Your task to perform on an android device: toggle show notifications on the lock screen Image 0: 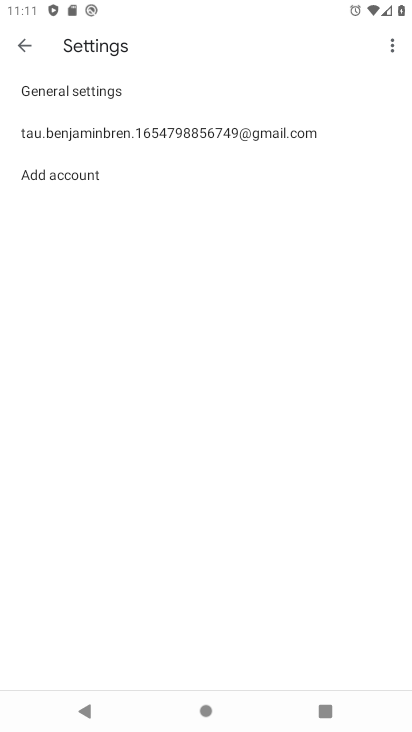
Step 0: press home button
Your task to perform on an android device: toggle show notifications on the lock screen Image 1: 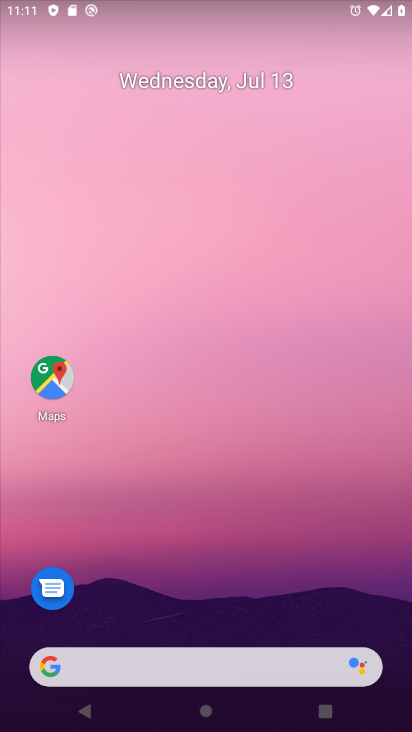
Step 1: drag from (248, 632) to (219, 2)
Your task to perform on an android device: toggle show notifications on the lock screen Image 2: 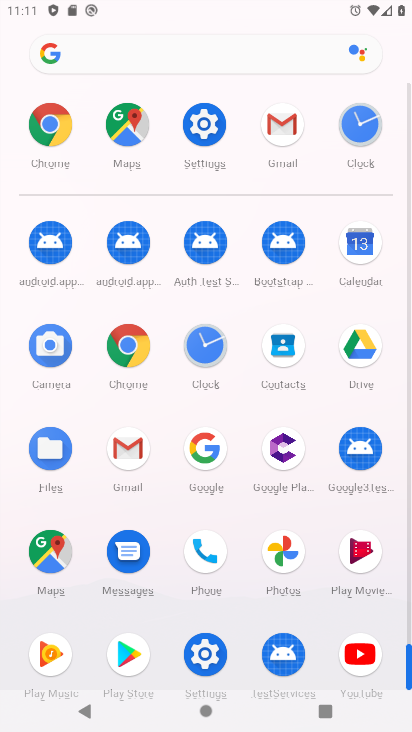
Step 2: click (213, 121)
Your task to perform on an android device: toggle show notifications on the lock screen Image 3: 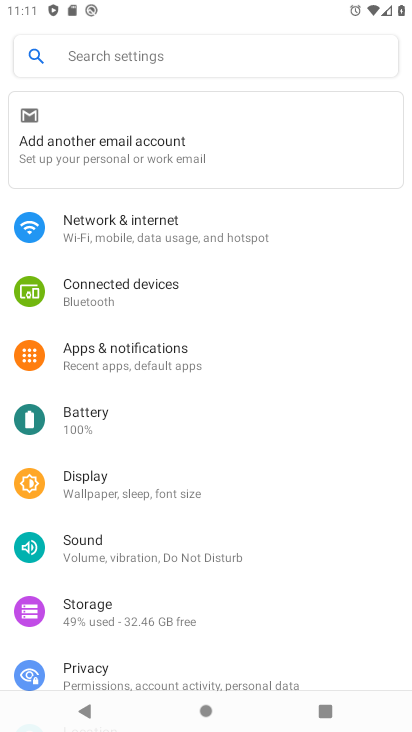
Step 3: click (98, 358)
Your task to perform on an android device: toggle show notifications on the lock screen Image 4: 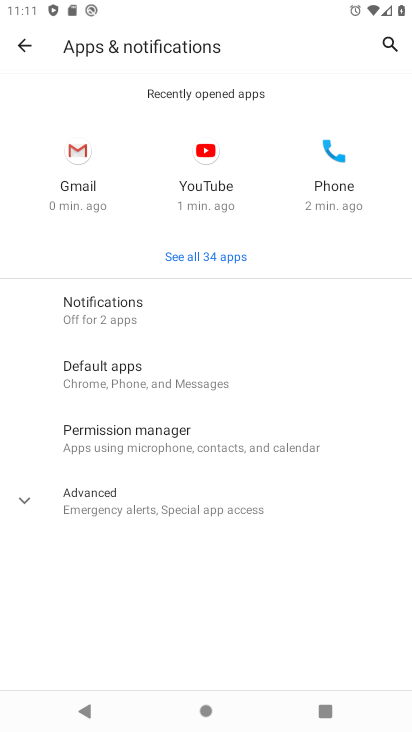
Step 4: click (129, 303)
Your task to perform on an android device: toggle show notifications on the lock screen Image 5: 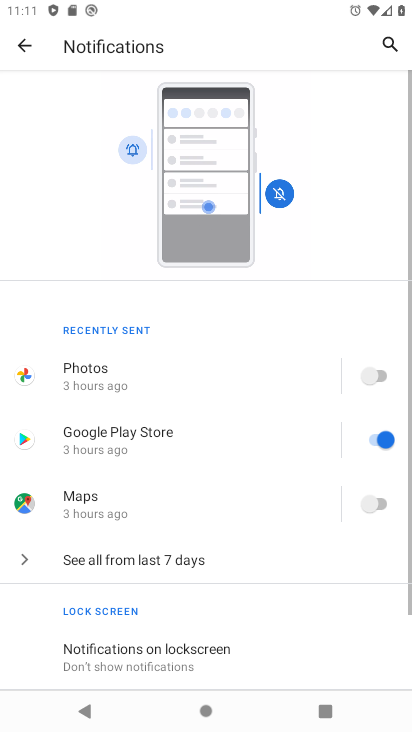
Step 5: drag from (249, 668) to (178, 274)
Your task to perform on an android device: toggle show notifications on the lock screen Image 6: 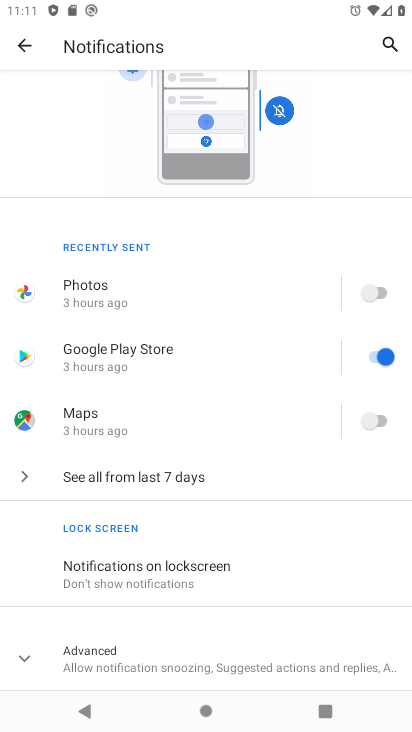
Step 6: click (188, 587)
Your task to perform on an android device: toggle show notifications on the lock screen Image 7: 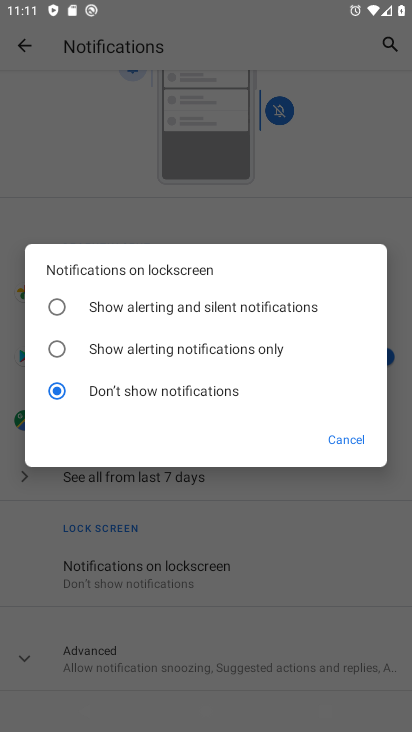
Step 7: click (49, 309)
Your task to perform on an android device: toggle show notifications on the lock screen Image 8: 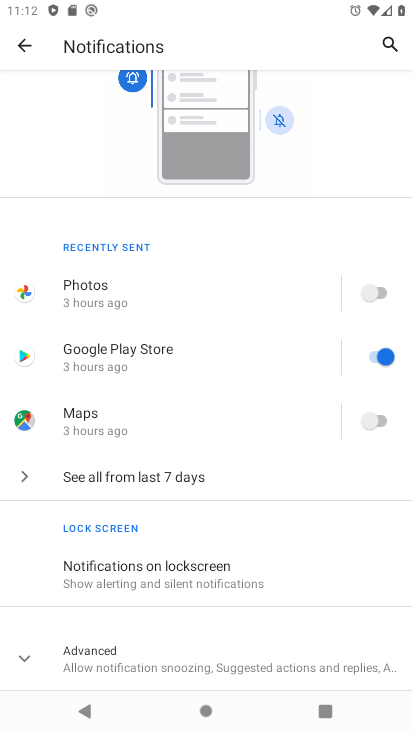
Step 8: task complete